Your task to perform on an android device: change the clock display to analog Image 0: 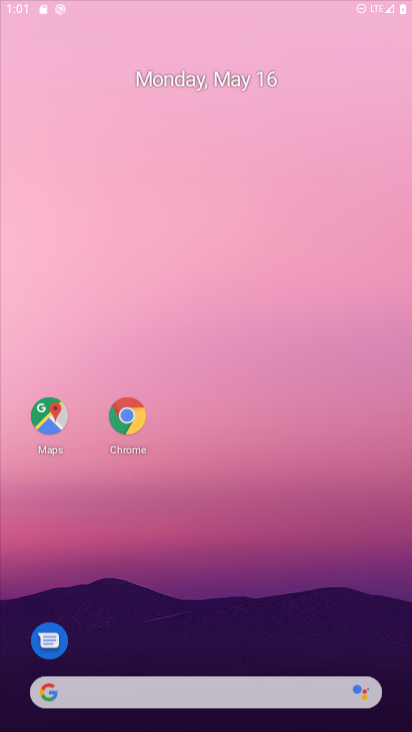
Step 0: drag from (266, 276) to (123, 24)
Your task to perform on an android device: change the clock display to analog Image 1: 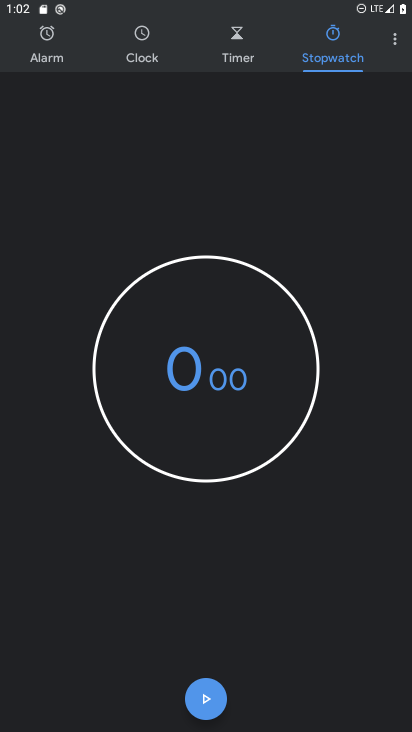
Step 1: drag from (224, 508) to (207, 108)
Your task to perform on an android device: change the clock display to analog Image 2: 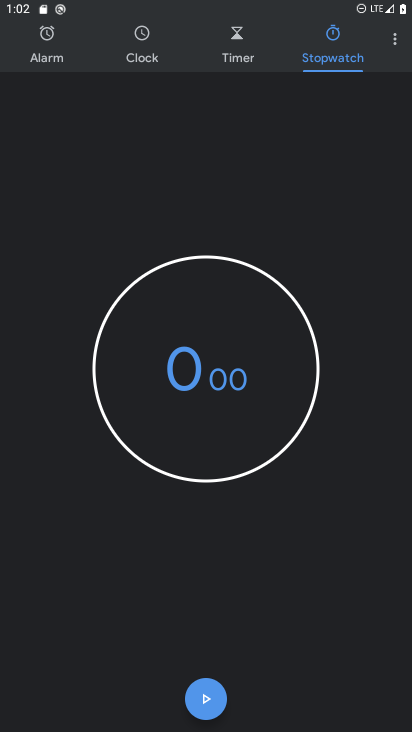
Step 2: click (396, 34)
Your task to perform on an android device: change the clock display to analog Image 3: 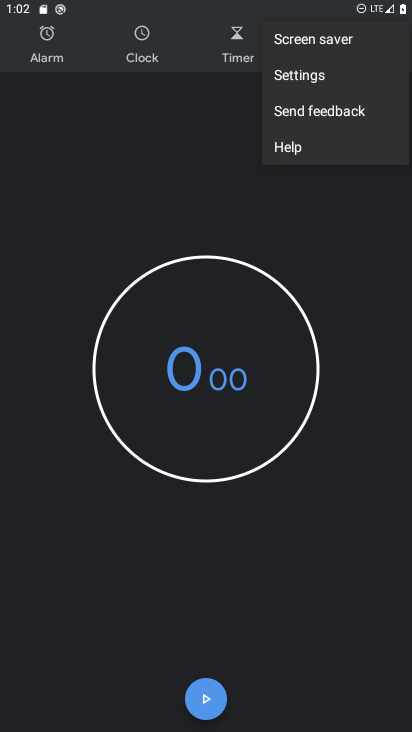
Step 3: click (301, 72)
Your task to perform on an android device: change the clock display to analog Image 4: 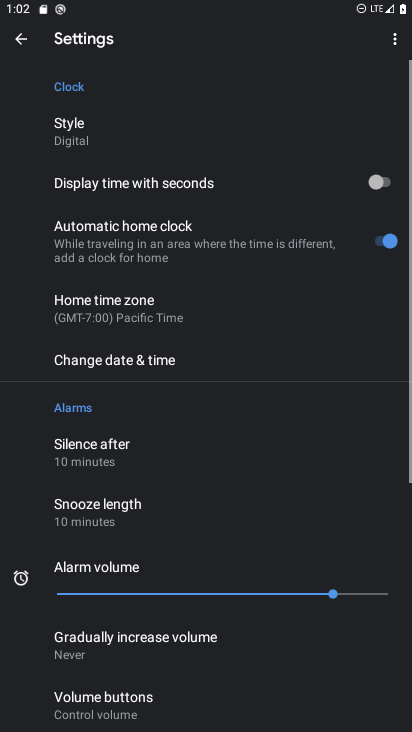
Step 4: click (116, 134)
Your task to perform on an android device: change the clock display to analog Image 5: 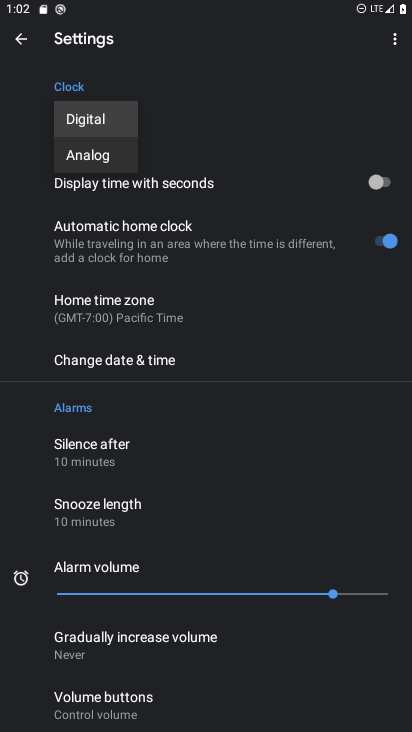
Step 5: click (96, 154)
Your task to perform on an android device: change the clock display to analog Image 6: 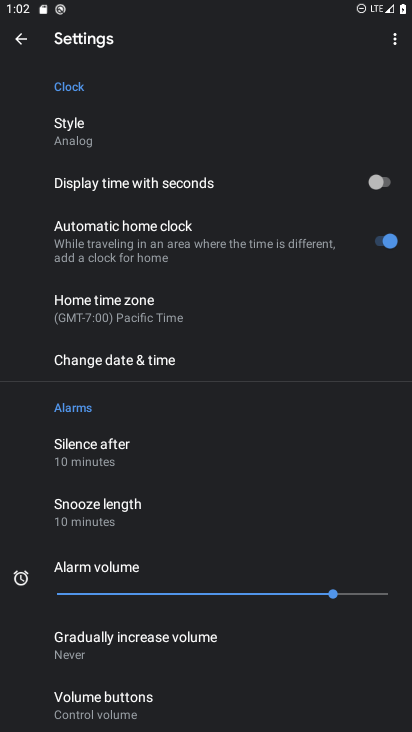
Step 6: task complete